Your task to perform on an android device: change the clock display to show seconds Image 0: 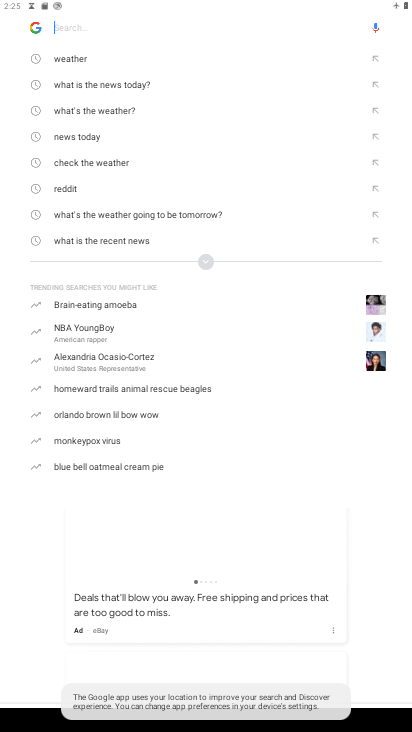
Step 0: press back button
Your task to perform on an android device: change the clock display to show seconds Image 1: 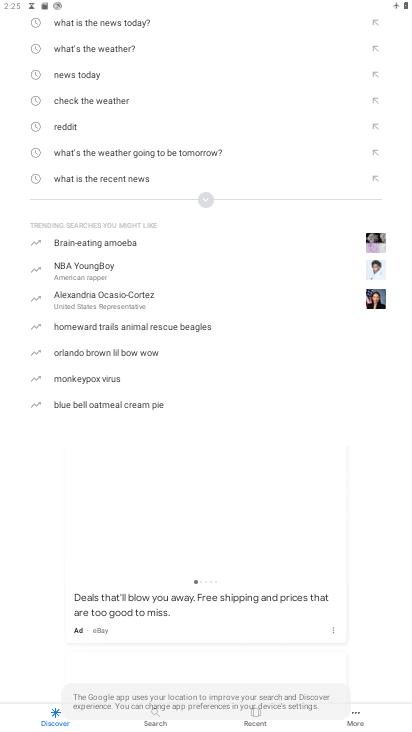
Step 1: press back button
Your task to perform on an android device: change the clock display to show seconds Image 2: 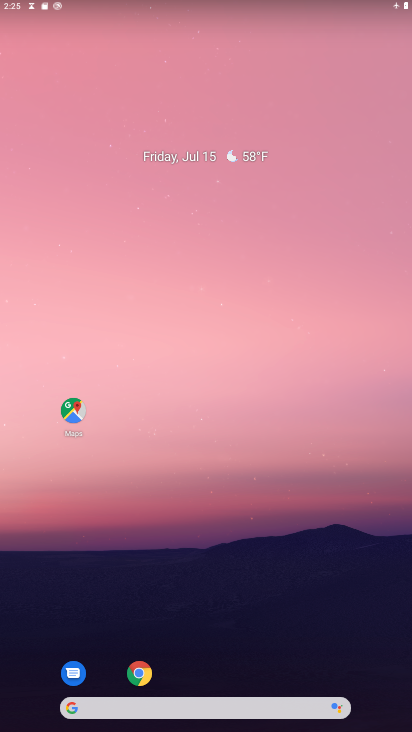
Step 2: drag from (380, 596) to (348, 179)
Your task to perform on an android device: change the clock display to show seconds Image 3: 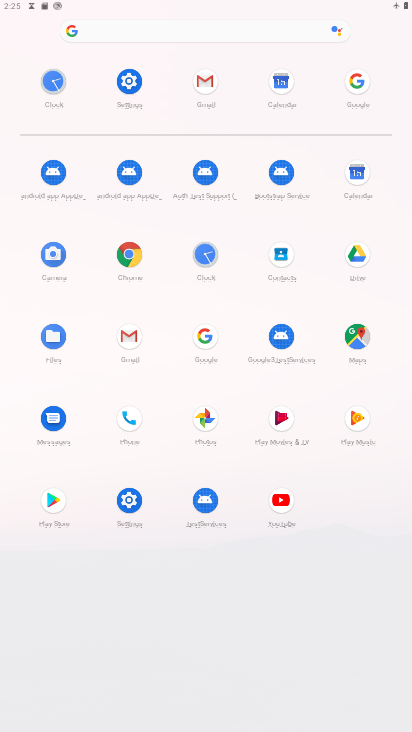
Step 3: click (215, 253)
Your task to perform on an android device: change the clock display to show seconds Image 4: 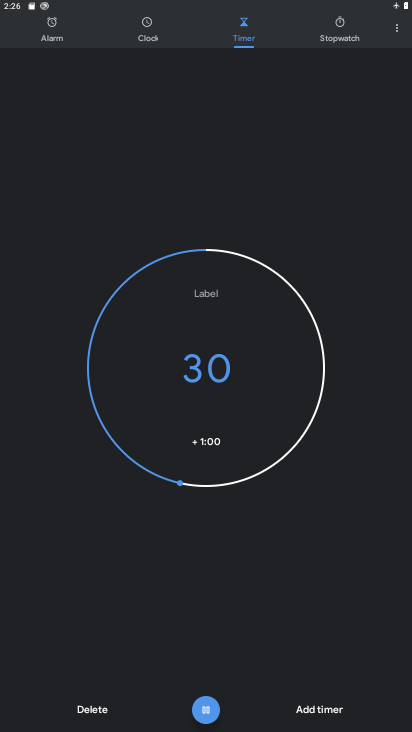
Step 4: click (393, 24)
Your task to perform on an android device: change the clock display to show seconds Image 5: 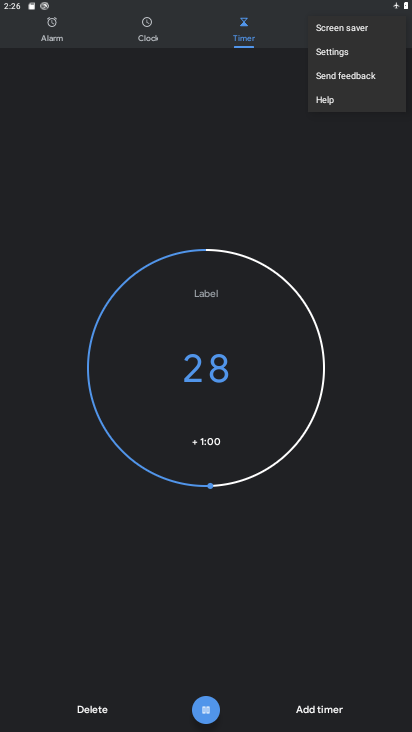
Step 5: click (339, 56)
Your task to perform on an android device: change the clock display to show seconds Image 6: 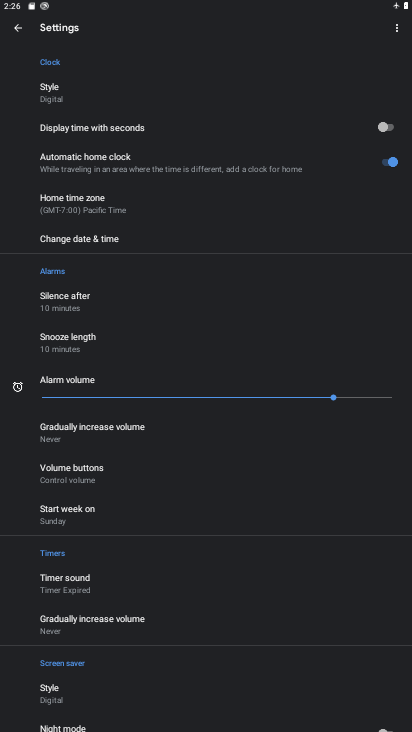
Step 6: click (388, 123)
Your task to perform on an android device: change the clock display to show seconds Image 7: 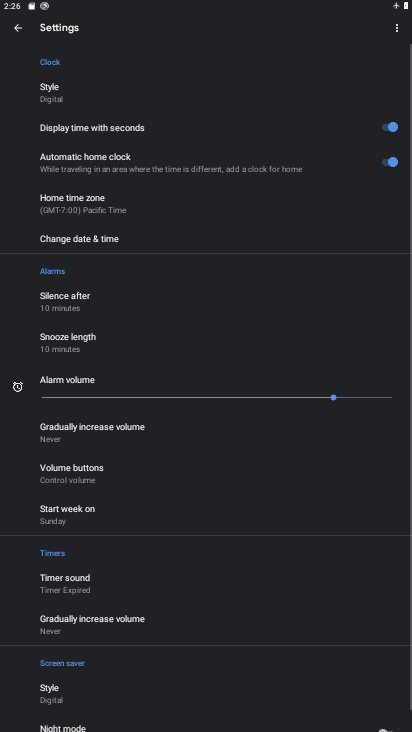
Step 7: task complete